Your task to perform on an android device: turn off javascript in the chrome app Image 0: 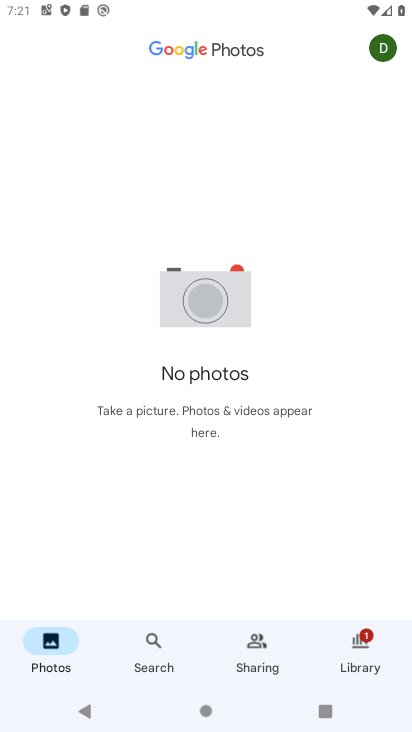
Step 0: press home button
Your task to perform on an android device: turn off javascript in the chrome app Image 1: 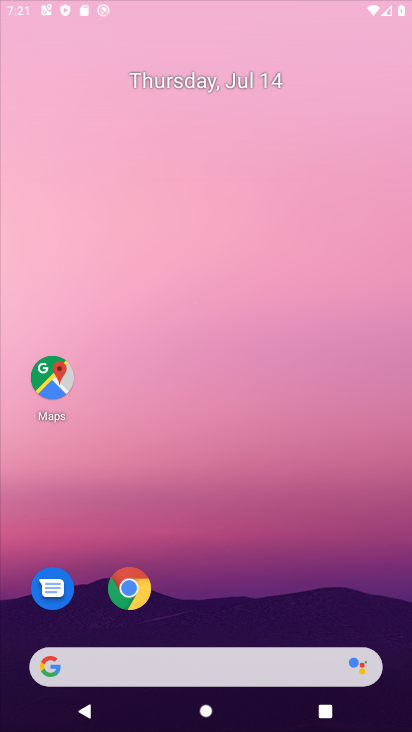
Step 1: drag from (355, 663) to (157, 17)
Your task to perform on an android device: turn off javascript in the chrome app Image 2: 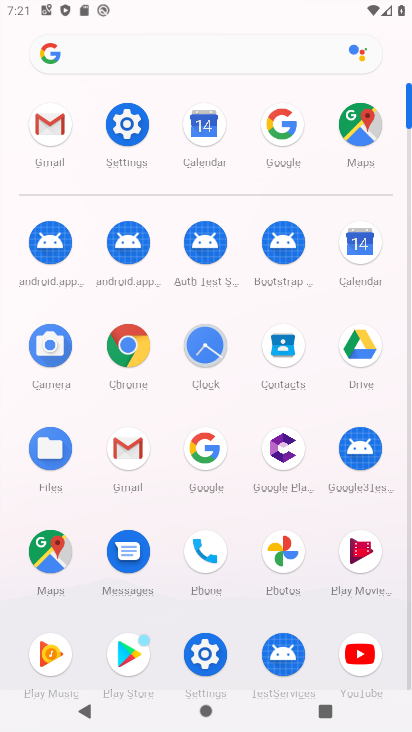
Step 2: click (125, 359)
Your task to perform on an android device: turn off javascript in the chrome app Image 3: 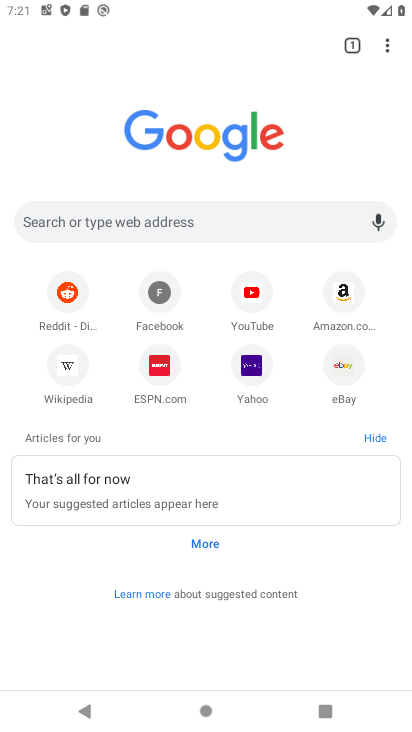
Step 3: click (384, 46)
Your task to perform on an android device: turn off javascript in the chrome app Image 4: 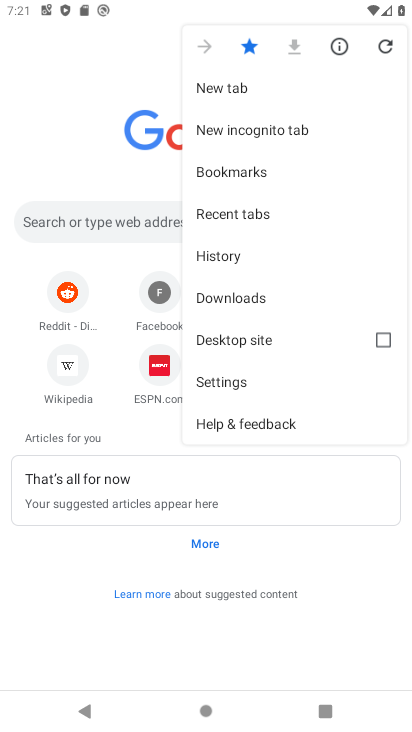
Step 4: click (233, 389)
Your task to perform on an android device: turn off javascript in the chrome app Image 5: 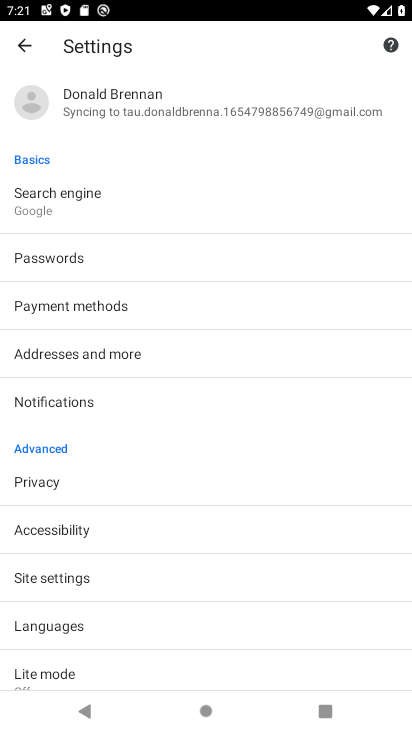
Step 5: click (60, 581)
Your task to perform on an android device: turn off javascript in the chrome app Image 6: 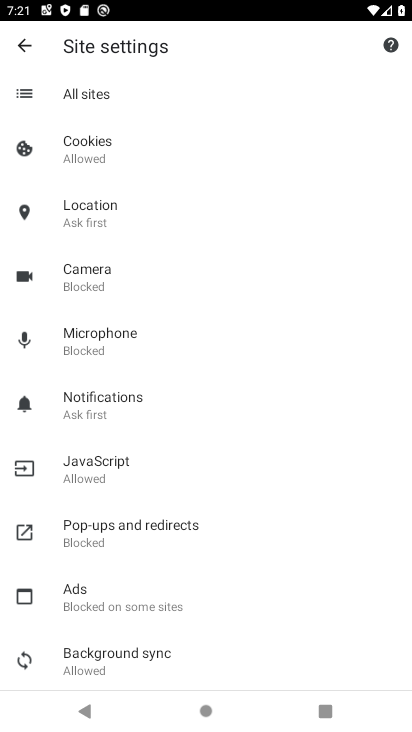
Step 6: click (127, 467)
Your task to perform on an android device: turn off javascript in the chrome app Image 7: 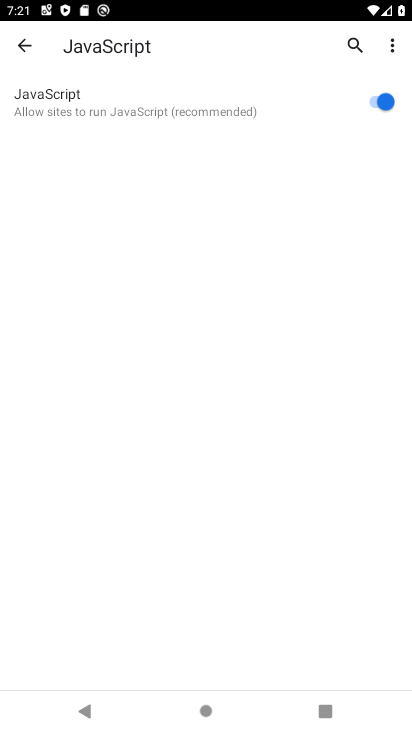
Step 7: click (359, 101)
Your task to perform on an android device: turn off javascript in the chrome app Image 8: 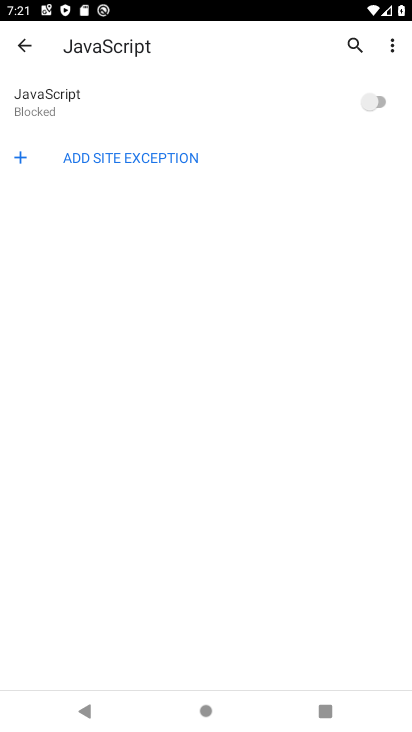
Step 8: task complete